Your task to perform on an android device: add a contact Image 0: 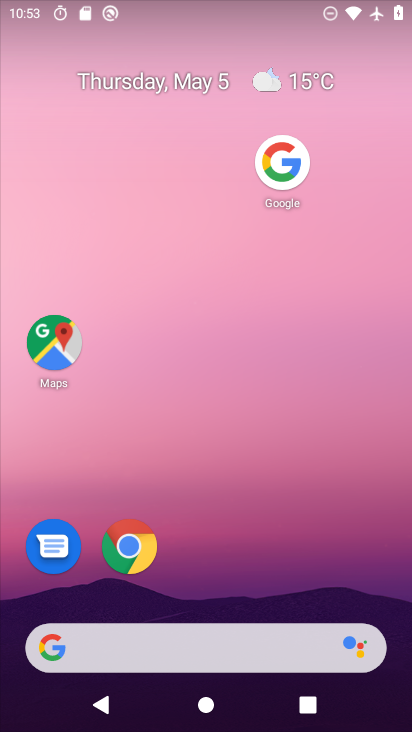
Step 0: drag from (174, 647) to (329, 65)
Your task to perform on an android device: add a contact Image 1: 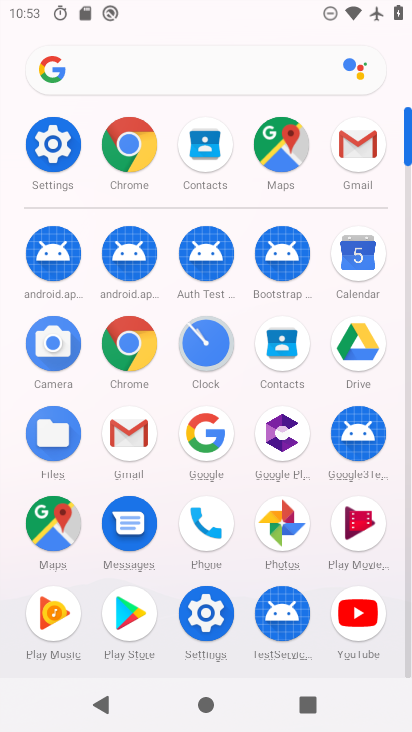
Step 1: click (293, 356)
Your task to perform on an android device: add a contact Image 2: 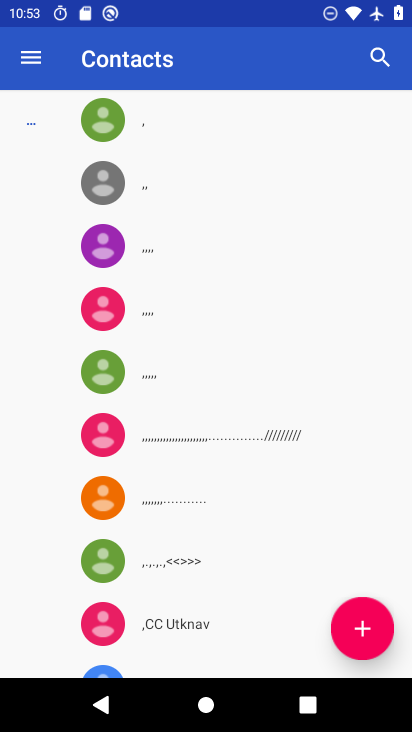
Step 2: click (369, 627)
Your task to perform on an android device: add a contact Image 3: 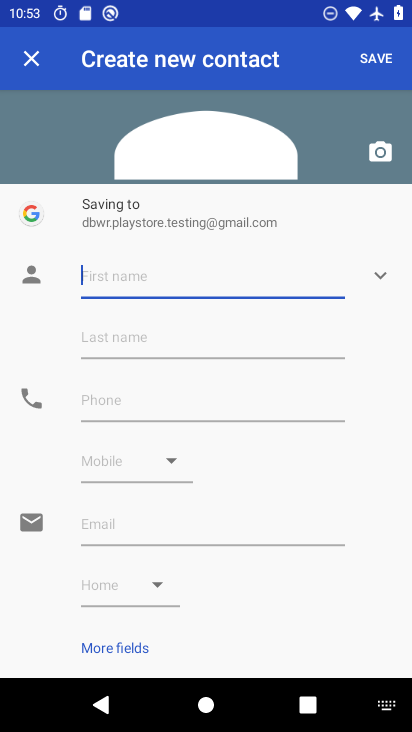
Step 3: type "vreiuyb"
Your task to perform on an android device: add a contact Image 4: 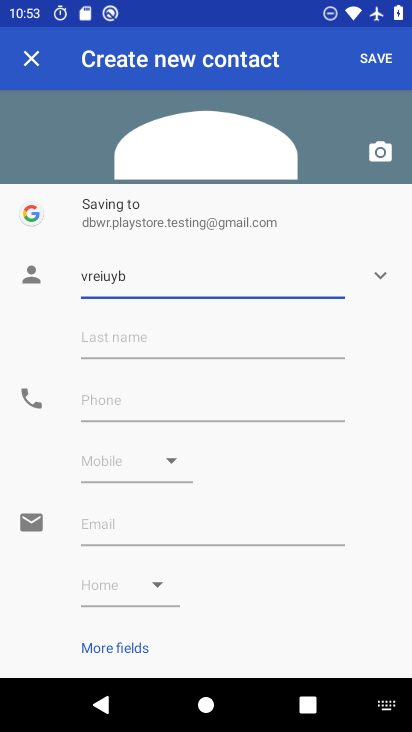
Step 4: click (123, 396)
Your task to perform on an android device: add a contact Image 5: 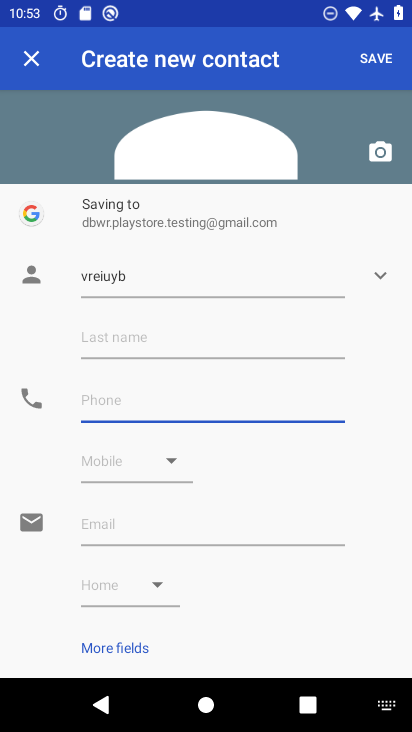
Step 5: type "4444"
Your task to perform on an android device: add a contact Image 6: 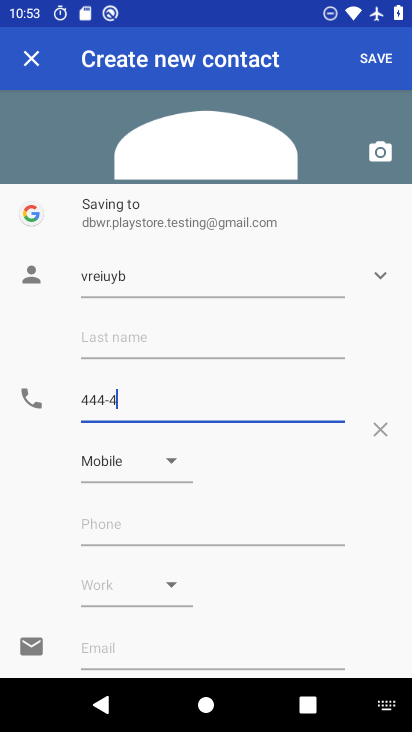
Step 6: click (379, 56)
Your task to perform on an android device: add a contact Image 7: 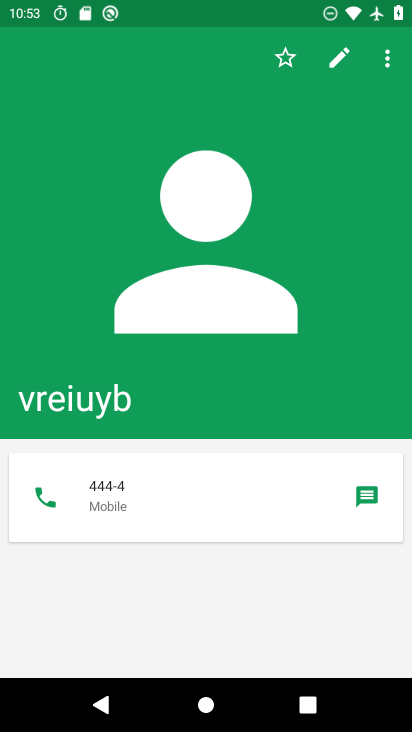
Step 7: task complete